Your task to perform on an android device: Search for pizza restaurants on Maps Image 0: 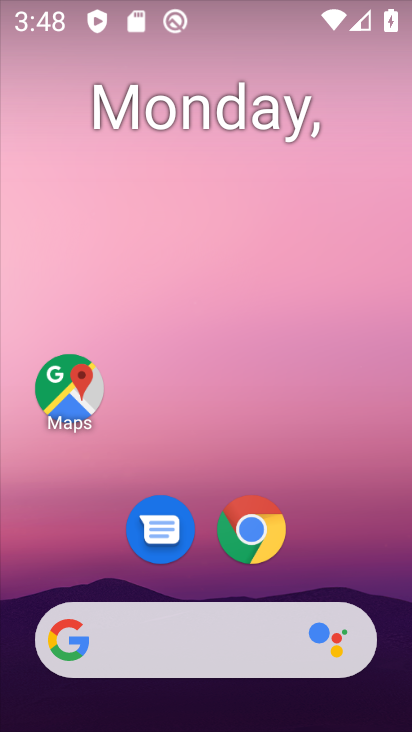
Step 0: click (73, 380)
Your task to perform on an android device: Search for pizza restaurants on Maps Image 1: 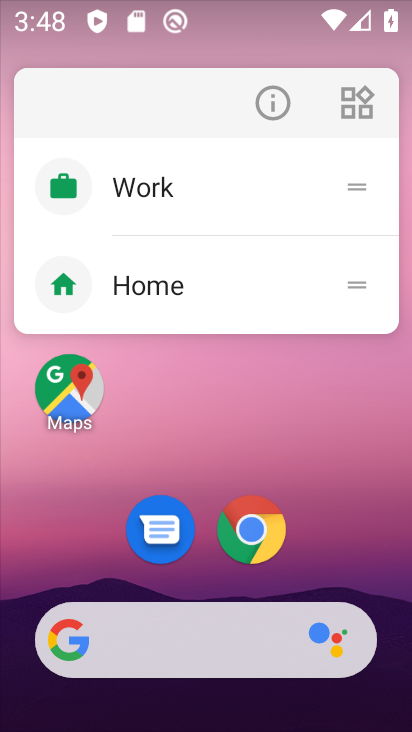
Step 1: click (75, 365)
Your task to perform on an android device: Search for pizza restaurants on Maps Image 2: 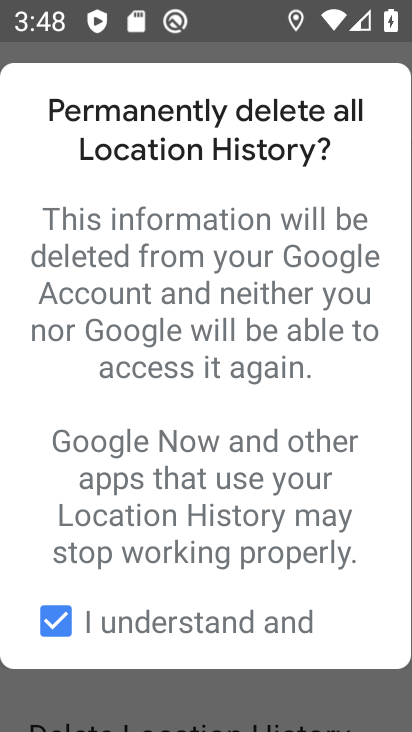
Step 2: press back button
Your task to perform on an android device: Search for pizza restaurants on Maps Image 3: 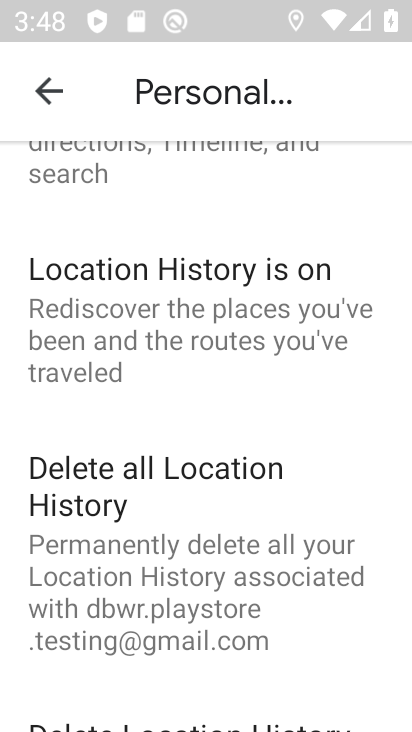
Step 3: click (32, 93)
Your task to perform on an android device: Search for pizza restaurants on Maps Image 4: 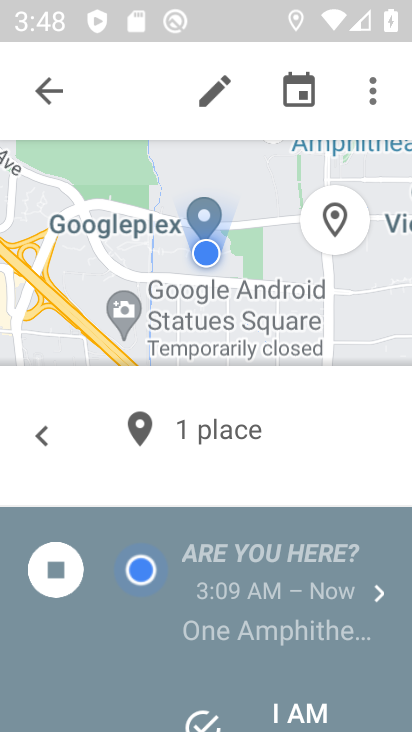
Step 4: click (58, 96)
Your task to perform on an android device: Search for pizza restaurants on Maps Image 5: 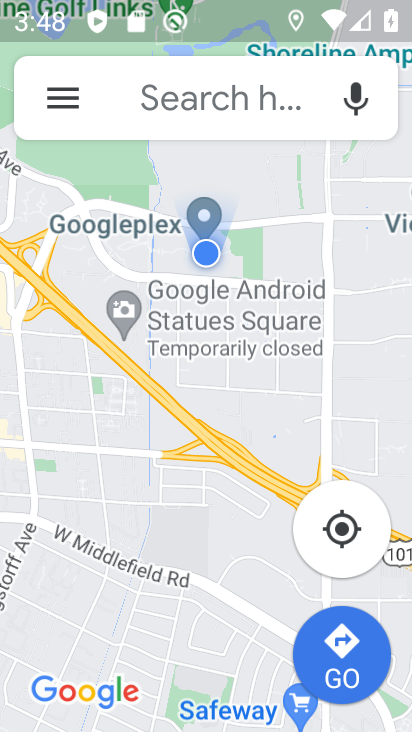
Step 5: click (136, 81)
Your task to perform on an android device: Search for pizza restaurants on Maps Image 6: 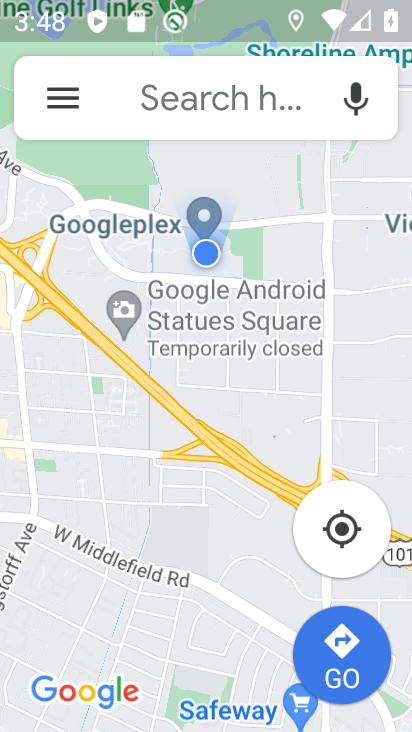
Step 6: type "Pizza restaurants"
Your task to perform on an android device: Search for pizza restaurants on Maps Image 7: 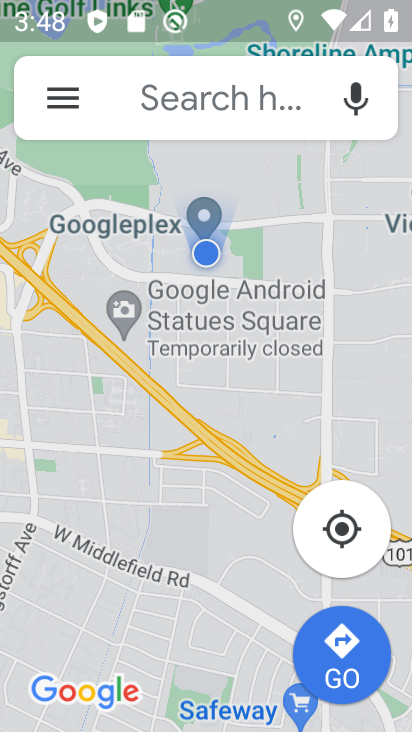
Step 7: click (192, 97)
Your task to perform on an android device: Search for pizza restaurants on Maps Image 8: 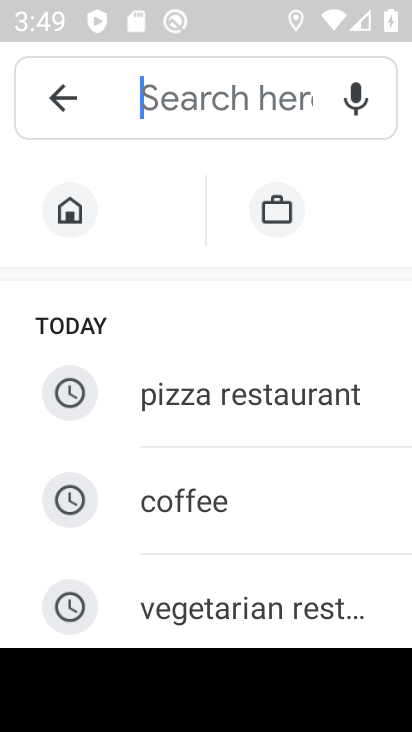
Step 8: click (326, 400)
Your task to perform on an android device: Search for pizza restaurants on Maps Image 9: 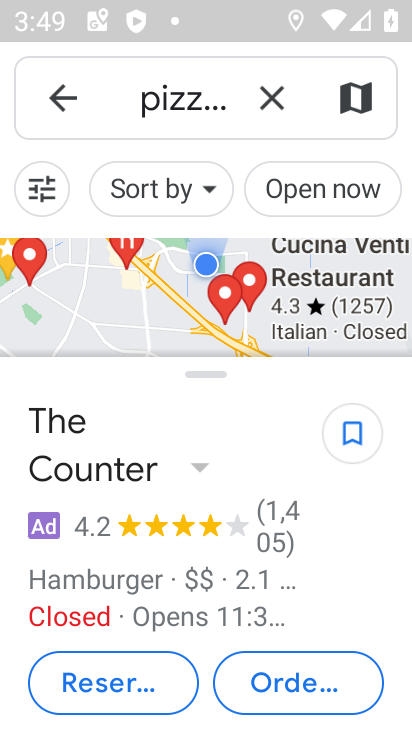
Step 9: task complete